Your task to perform on an android device: toggle notifications settings in the gmail app Image 0: 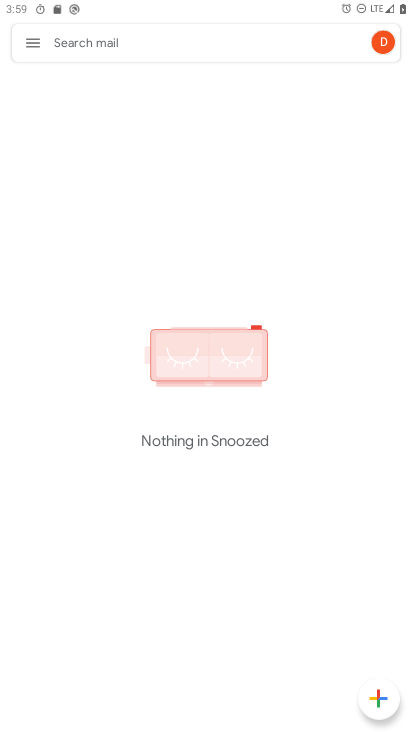
Step 0: press home button
Your task to perform on an android device: toggle notifications settings in the gmail app Image 1: 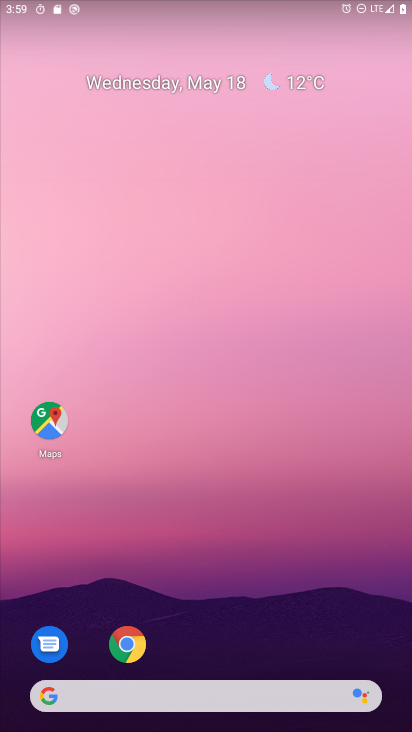
Step 1: drag from (401, 637) to (400, 241)
Your task to perform on an android device: toggle notifications settings in the gmail app Image 2: 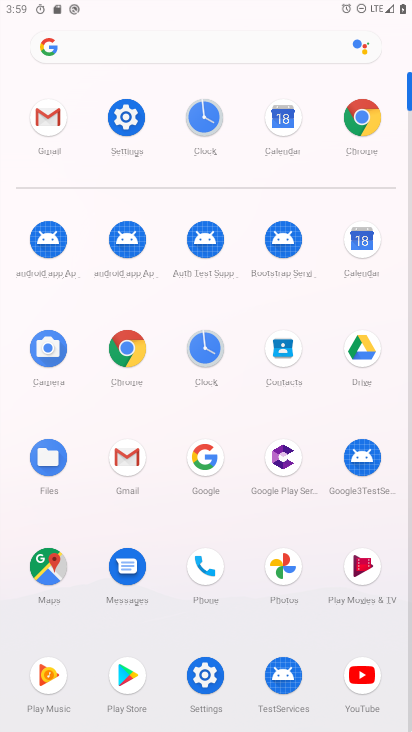
Step 2: click (118, 463)
Your task to perform on an android device: toggle notifications settings in the gmail app Image 3: 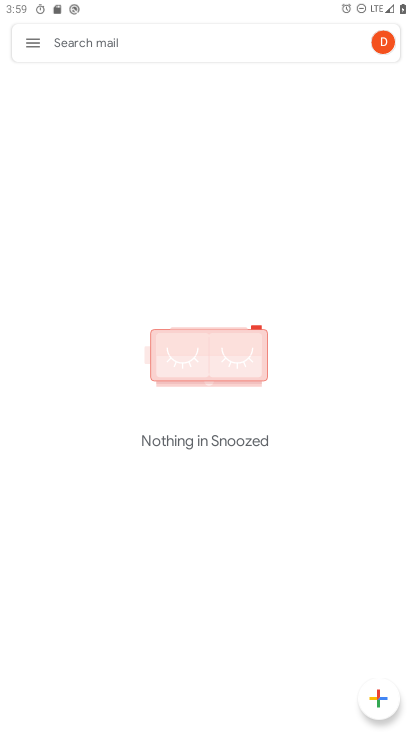
Step 3: click (31, 40)
Your task to perform on an android device: toggle notifications settings in the gmail app Image 4: 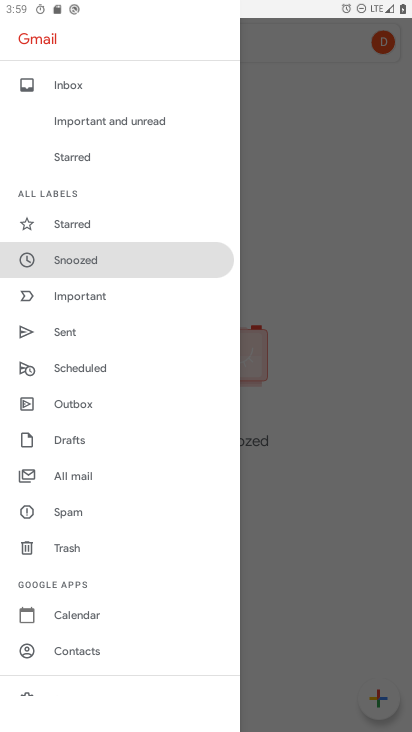
Step 4: drag from (158, 637) to (163, 239)
Your task to perform on an android device: toggle notifications settings in the gmail app Image 5: 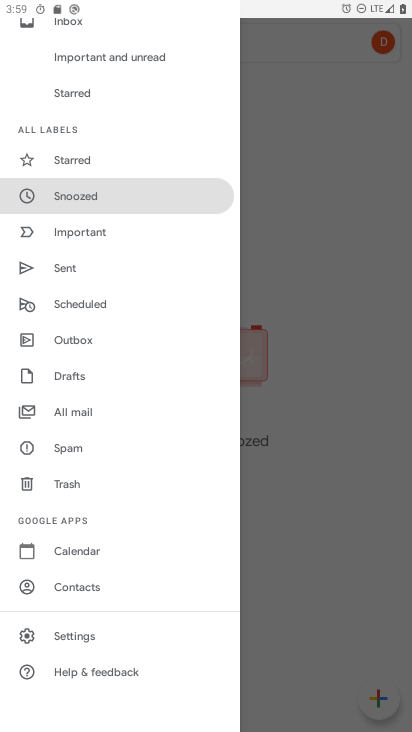
Step 5: click (76, 638)
Your task to perform on an android device: toggle notifications settings in the gmail app Image 6: 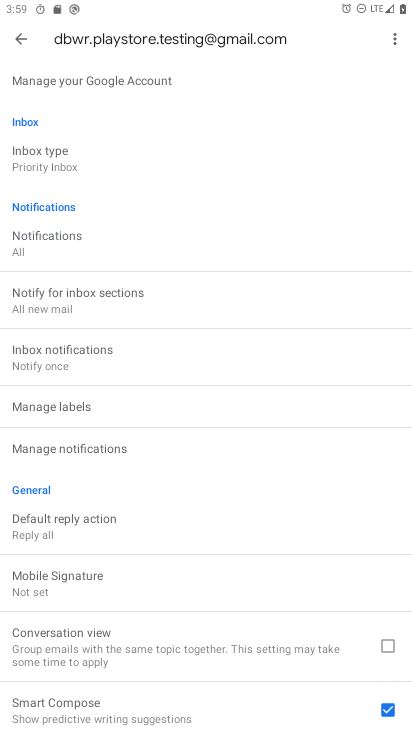
Step 6: click (15, 34)
Your task to perform on an android device: toggle notifications settings in the gmail app Image 7: 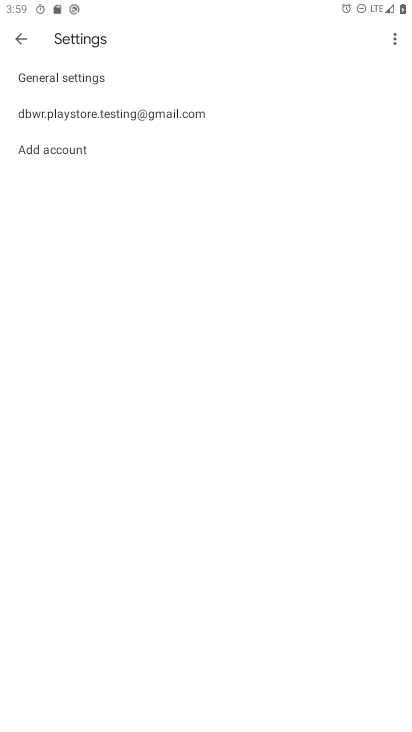
Step 7: click (73, 69)
Your task to perform on an android device: toggle notifications settings in the gmail app Image 8: 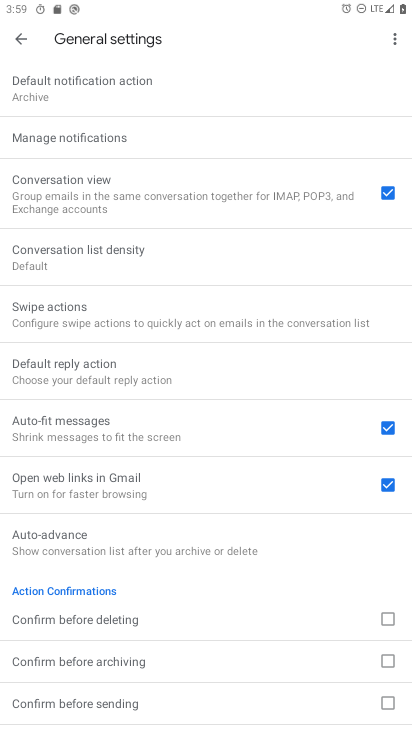
Step 8: click (83, 139)
Your task to perform on an android device: toggle notifications settings in the gmail app Image 9: 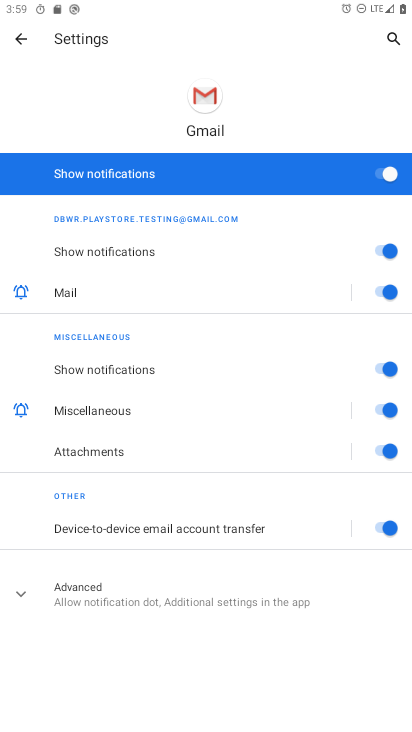
Step 9: click (378, 168)
Your task to perform on an android device: toggle notifications settings in the gmail app Image 10: 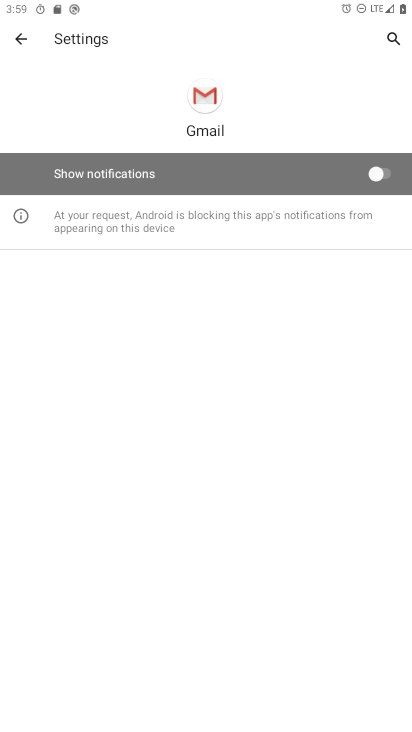
Step 10: task complete